Your task to perform on an android device: What's on my calendar today? Image 0: 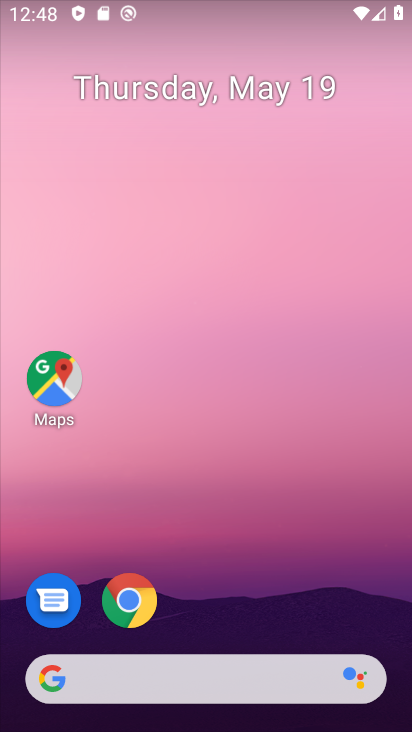
Step 0: drag from (263, 616) to (269, 8)
Your task to perform on an android device: What's on my calendar today? Image 1: 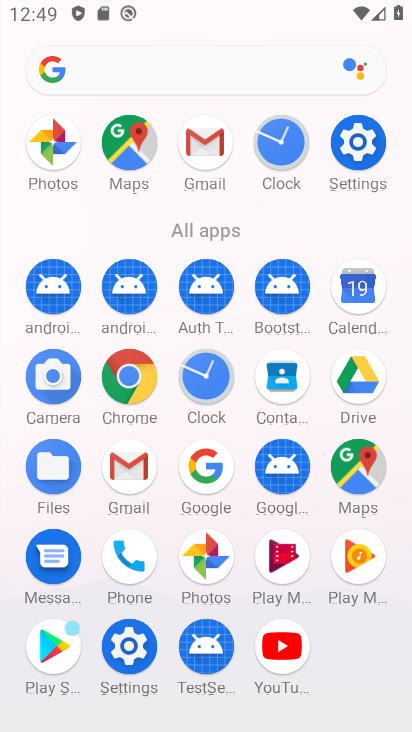
Step 1: click (352, 299)
Your task to perform on an android device: What's on my calendar today? Image 2: 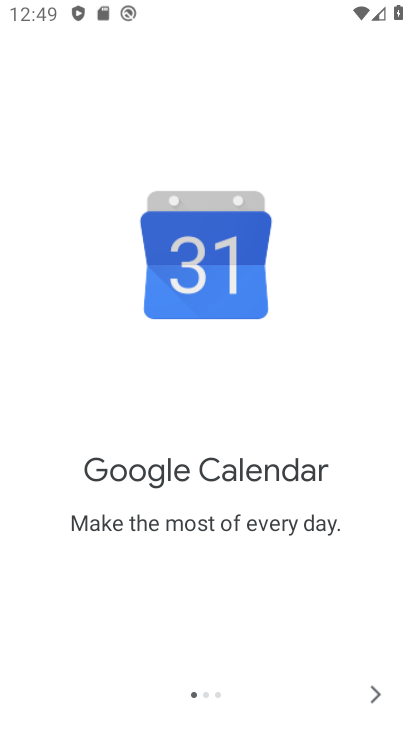
Step 2: click (377, 691)
Your task to perform on an android device: What's on my calendar today? Image 3: 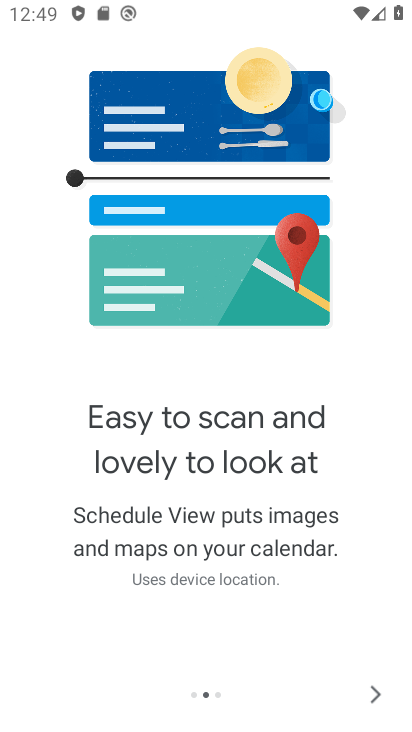
Step 3: click (378, 688)
Your task to perform on an android device: What's on my calendar today? Image 4: 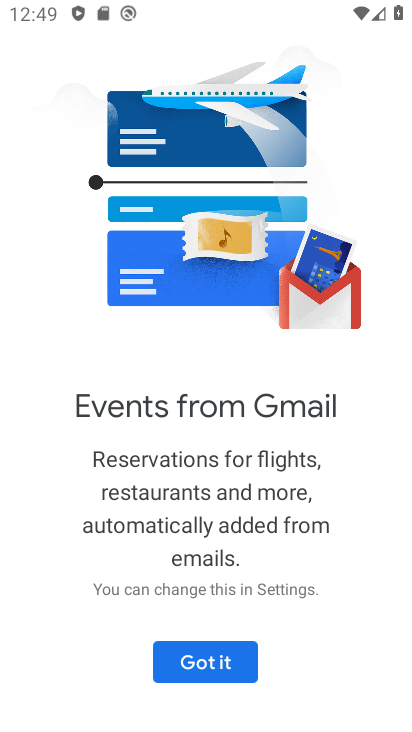
Step 4: click (227, 657)
Your task to perform on an android device: What's on my calendar today? Image 5: 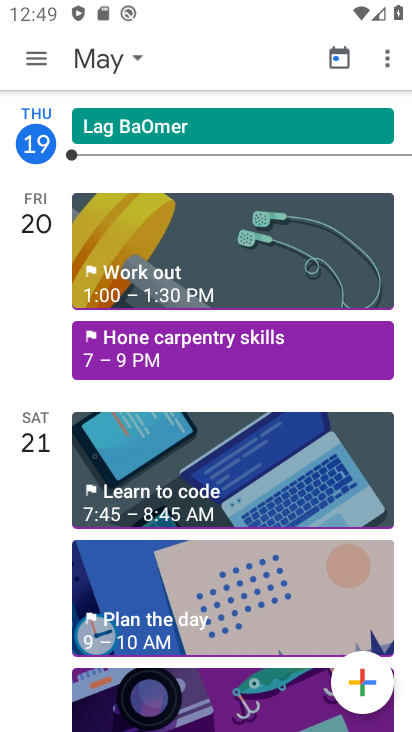
Step 5: click (86, 60)
Your task to perform on an android device: What's on my calendar today? Image 6: 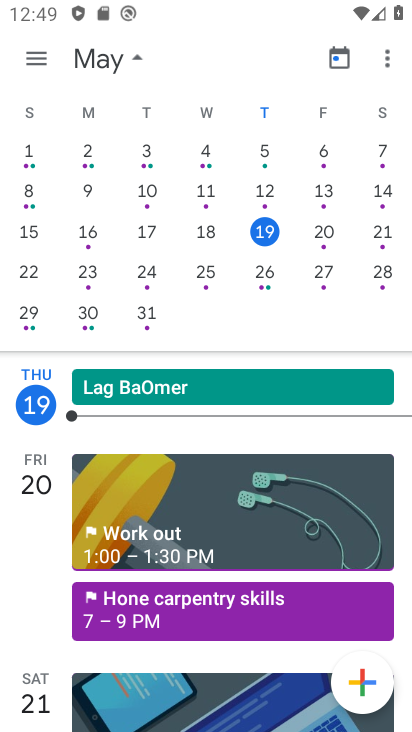
Step 6: click (261, 222)
Your task to perform on an android device: What's on my calendar today? Image 7: 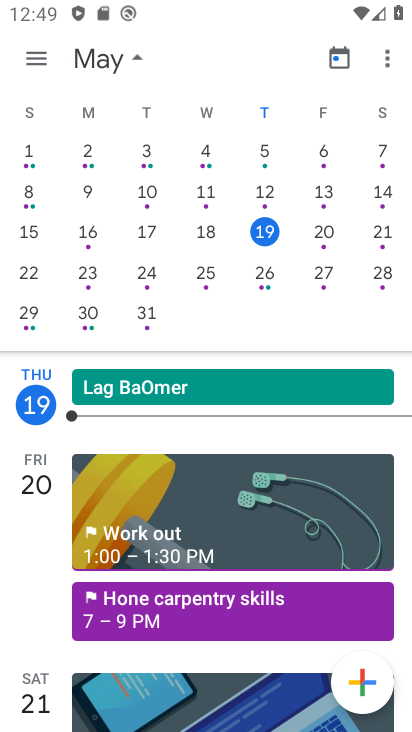
Step 7: task complete